Your task to perform on an android device: Search for pizza restaurants on Maps Image 0: 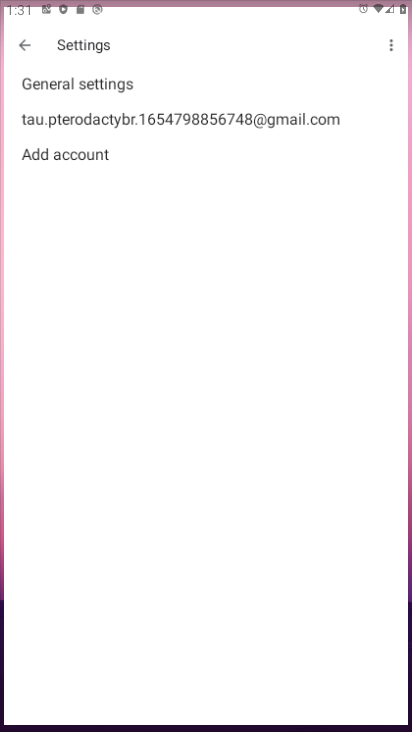
Step 0: drag from (337, 622) to (259, 169)
Your task to perform on an android device: Search for pizza restaurants on Maps Image 1: 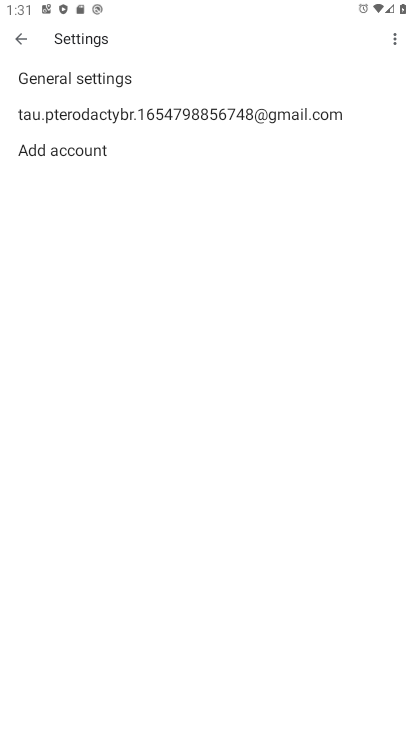
Step 1: press home button
Your task to perform on an android device: Search for pizza restaurants on Maps Image 2: 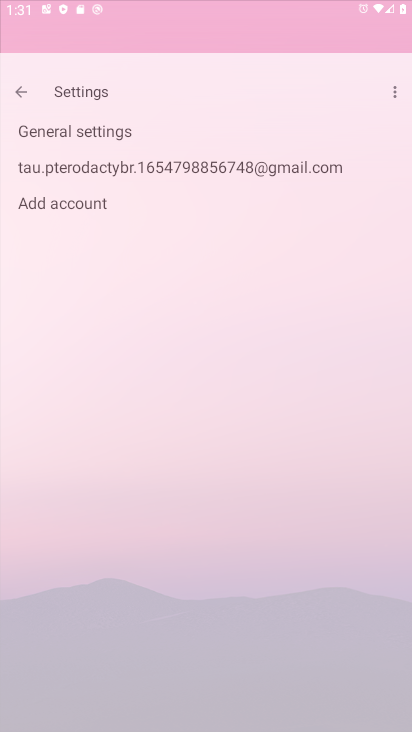
Step 2: drag from (349, 709) to (191, 9)
Your task to perform on an android device: Search for pizza restaurants on Maps Image 3: 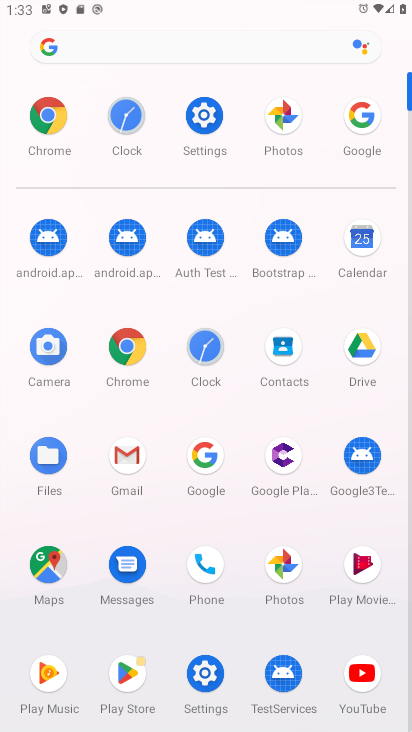
Step 3: click (22, 567)
Your task to perform on an android device: Search for pizza restaurants on Maps Image 4: 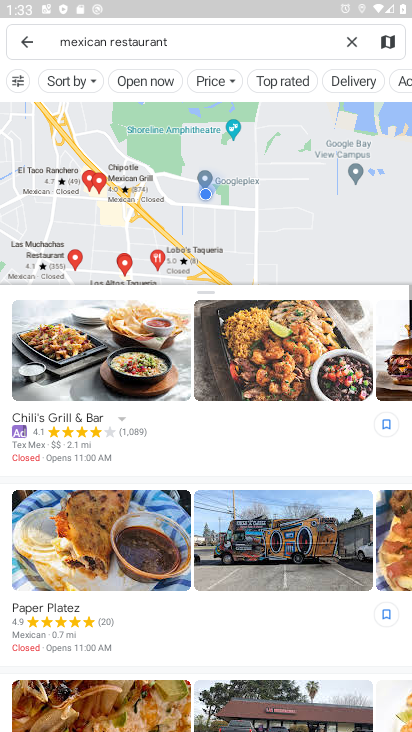
Step 4: click (349, 42)
Your task to perform on an android device: Search for pizza restaurants on Maps Image 5: 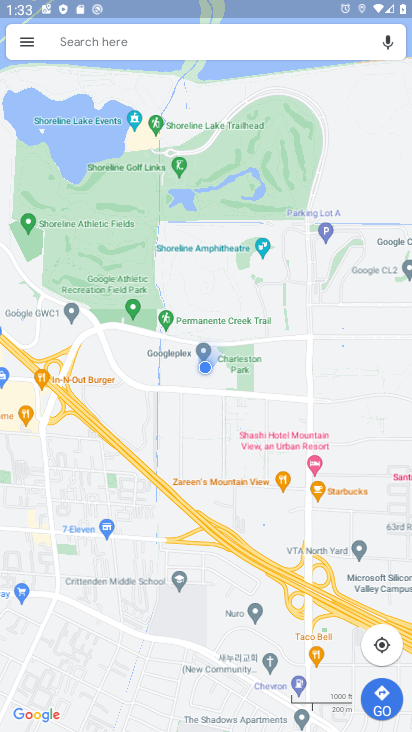
Step 5: click (107, 34)
Your task to perform on an android device: Search for pizza restaurants on Maps Image 6: 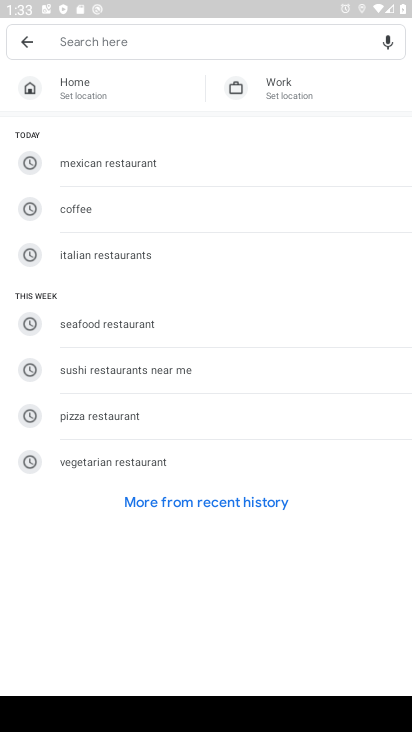
Step 6: click (118, 399)
Your task to perform on an android device: Search for pizza restaurants on Maps Image 7: 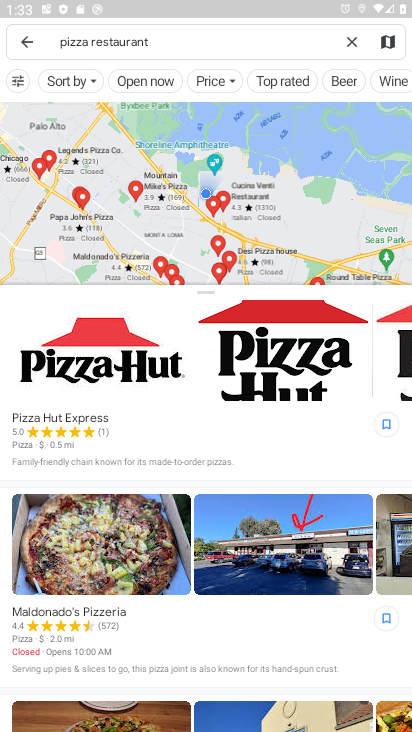
Step 7: task complete